Your task to perform on an android device: Check the news Image 0: 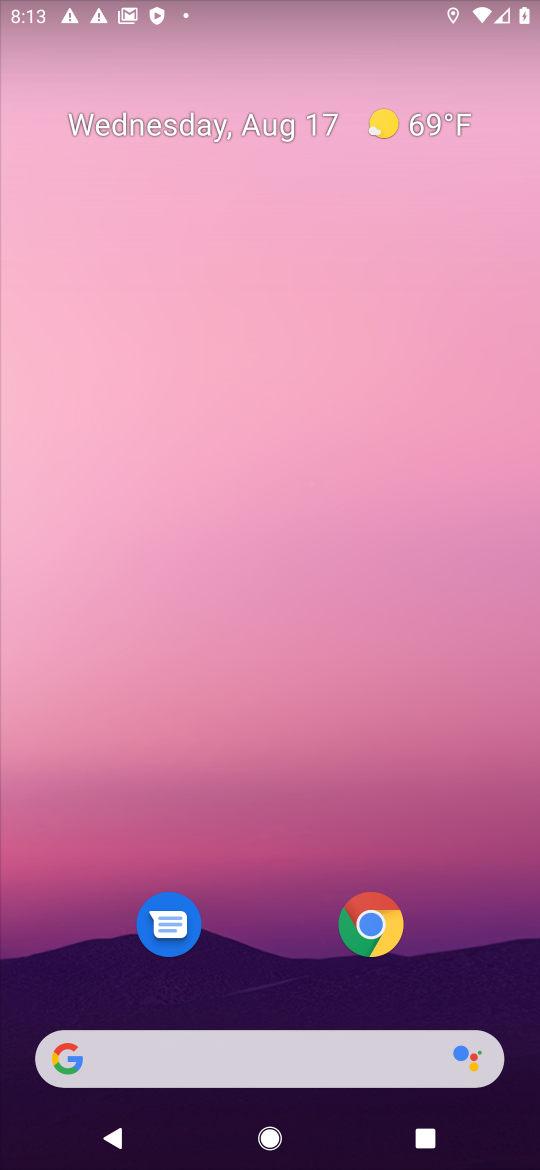
Step 0: drag from (273, 952) to (298, 14)
Your task to perform on an android device: Check the news Image 1: 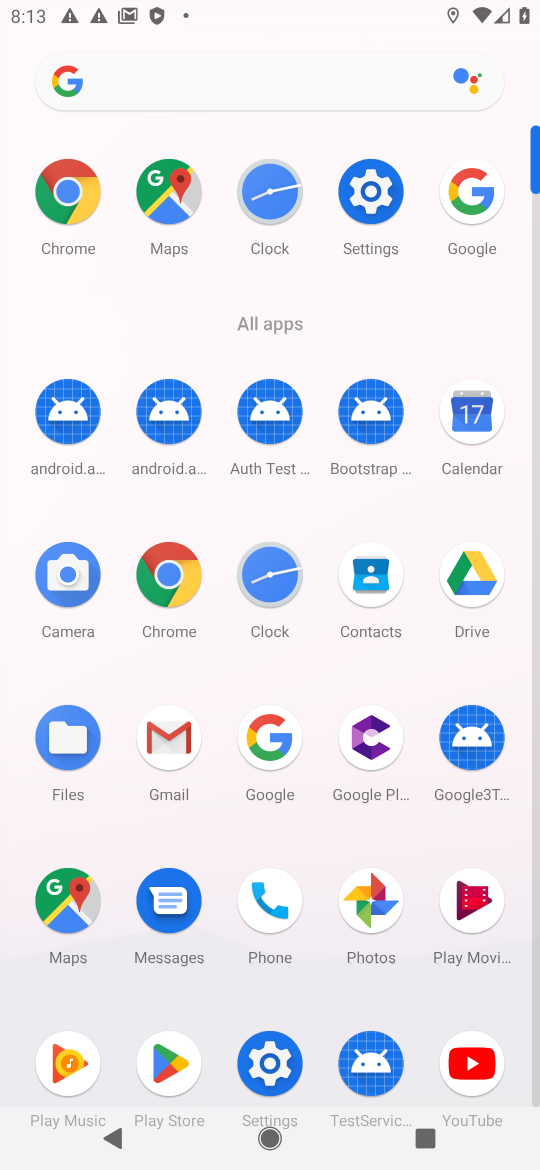
Step 1: click (161, 568)
Your task to perform on an android device: Check the news Image 2: 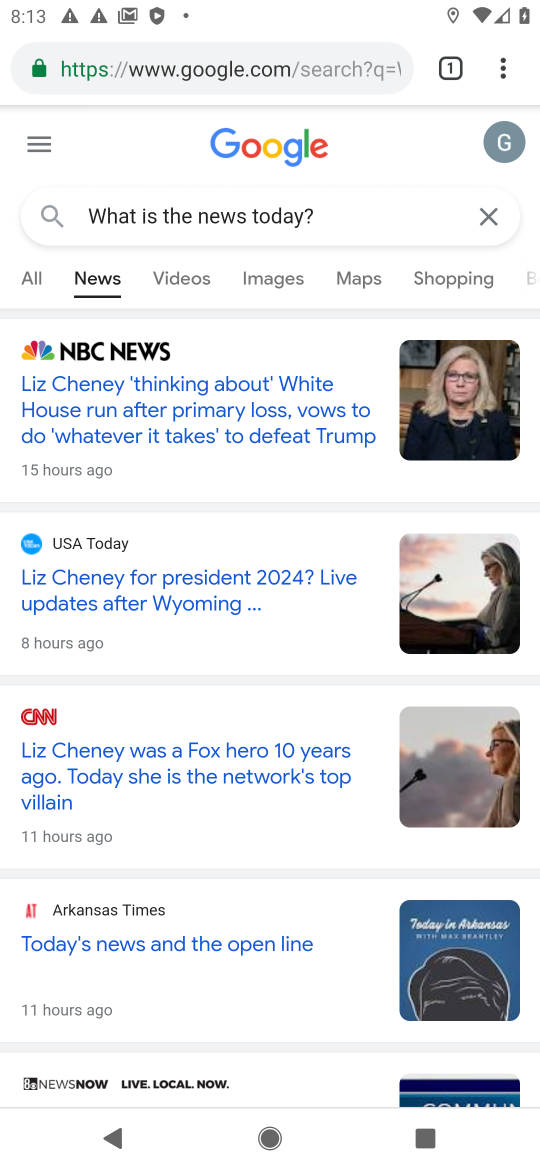
Step 2: click (259, 64)
Your task to perform on an android device: Check the news Image 3: 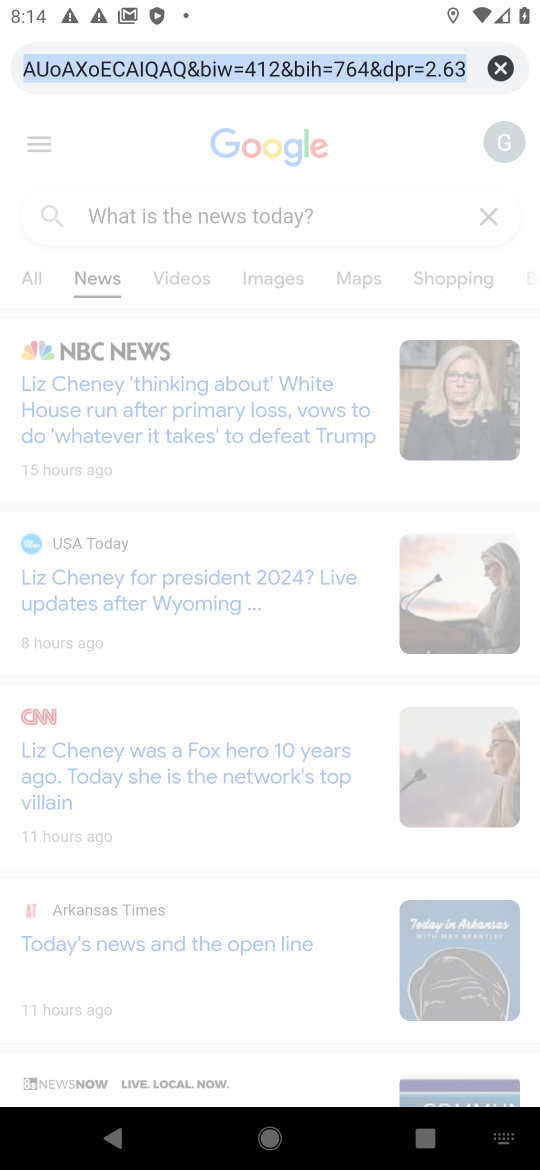
Step 3: type "Check the news"
Your task to perform on an android device: Check the news Image 4: 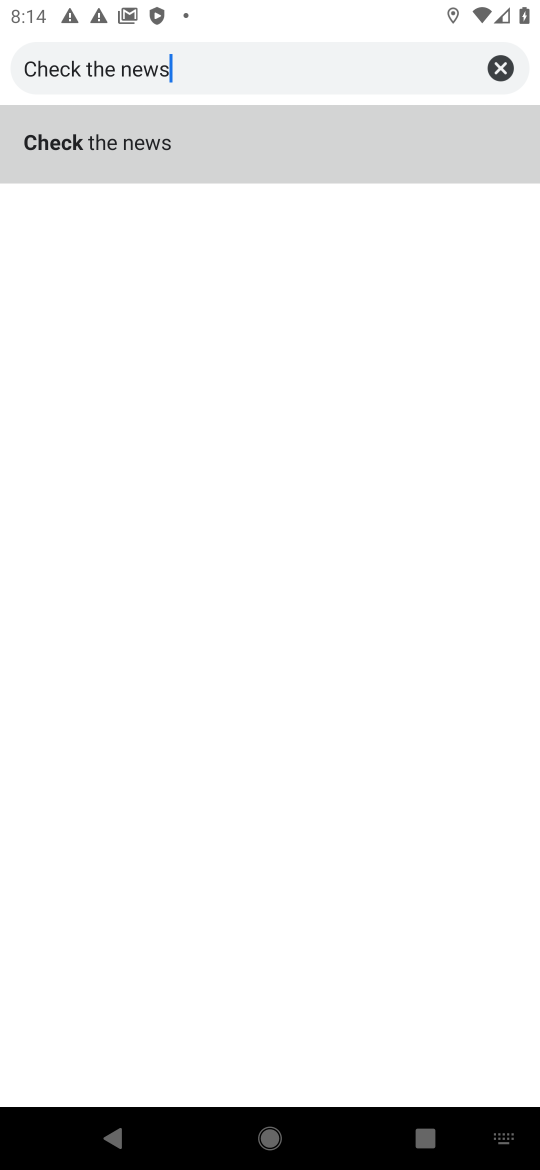
Step 4: click (64, 135)
Your task to perform on an android device: Check the news Image 5: 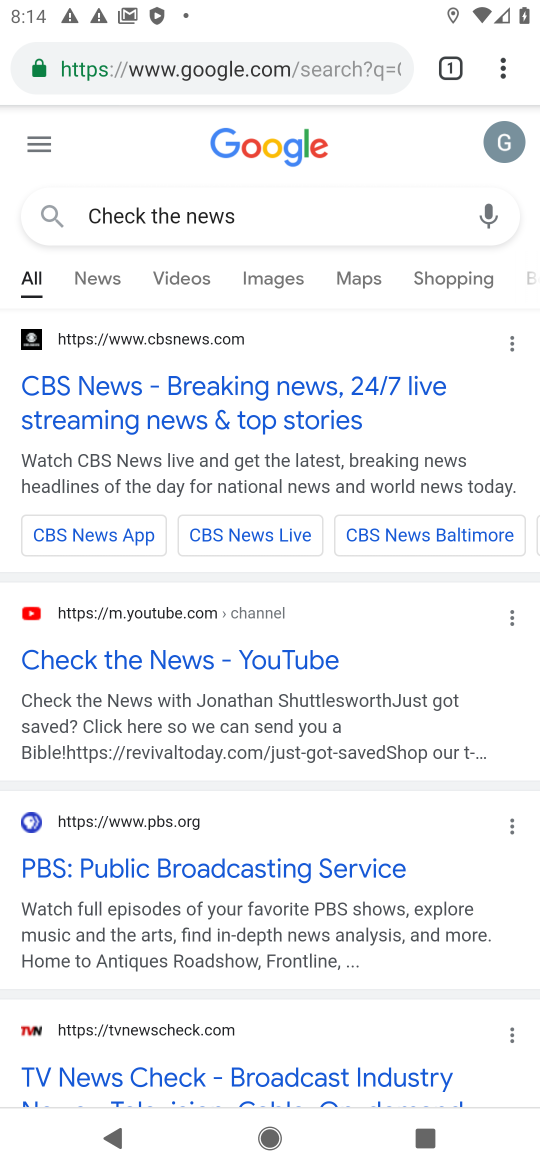
Step 5: task complete